Your task to perform on an android device: turn notification dots on Image 0: 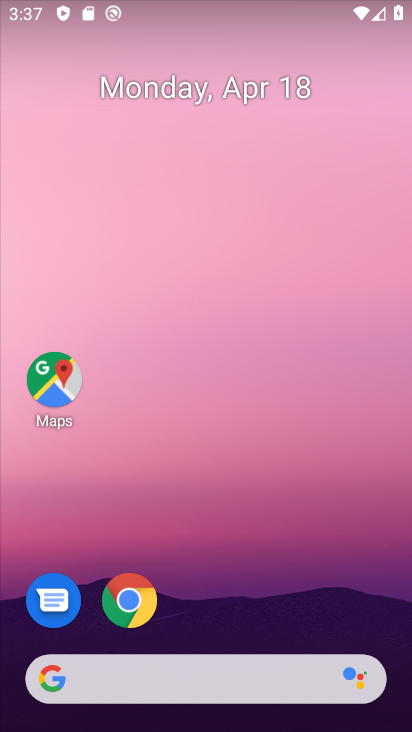
Step 0: click (117, 174)
Your task to perform on an android device: turn notification dots on Image 1: 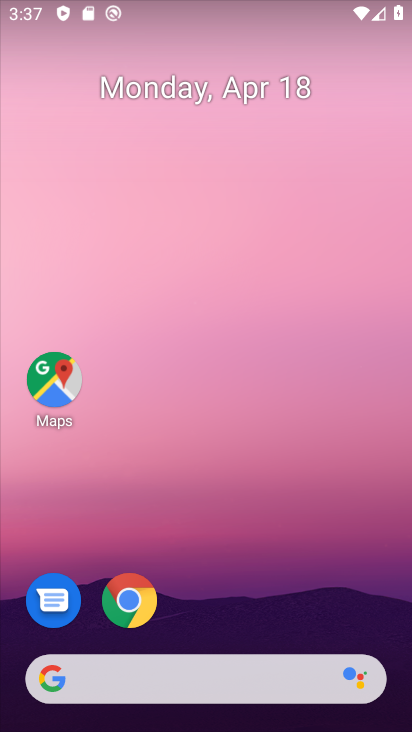
Step 1: click (182, 449)
Your task to perform on an android device: turn notification dots on Image 2: 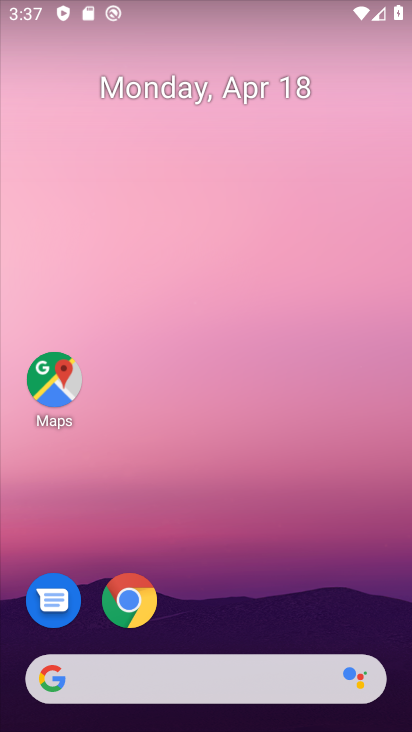
Step 2: drag from (225, 618) to (183, 8)
Your task to perform on an android device: turn notification dots on Image 3: 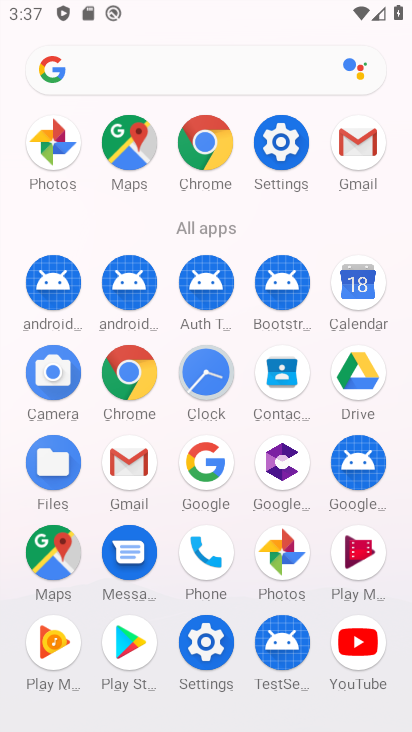
Step 3: click (282, 138)
Your task to perform on an android device: turn notification dots on Image 4: 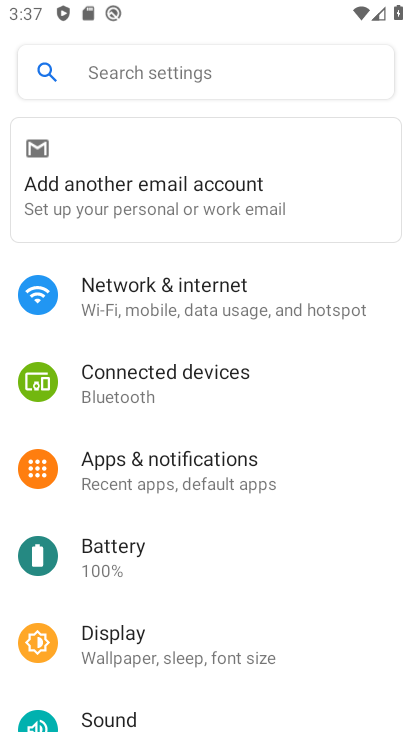
Step 4: click (160, 72)
Your task to perform on an android device: turn notification dots on Image 5: 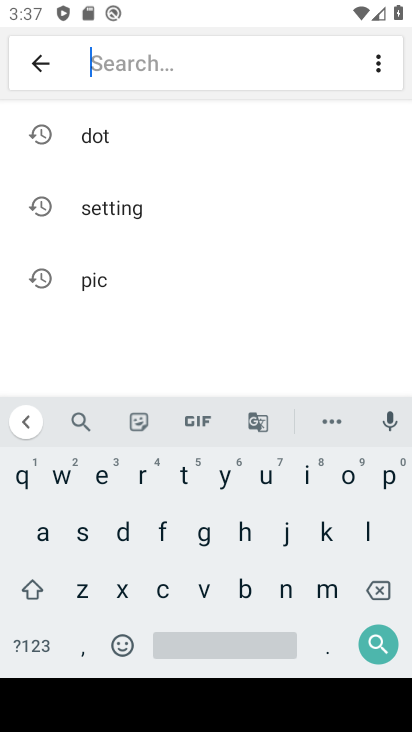
Step 5: click (121, 133)
Your task to perform on an android device: turn notification dots on Image 6: 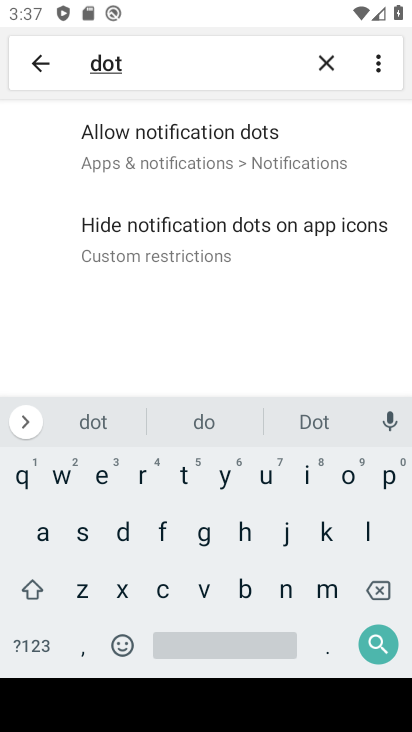
Step 6: click (121, 133)
Your task to perform on an android device: turn notification dots on Image 7: 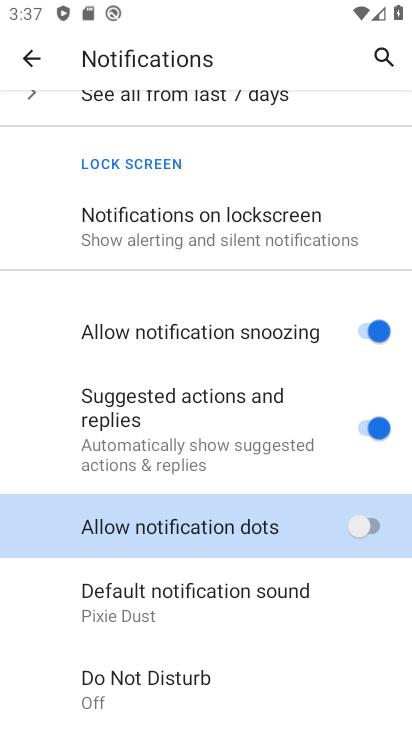
Step 7: click (368, 529)
Your task to perform on an android device: turn notification dots on Image 8: 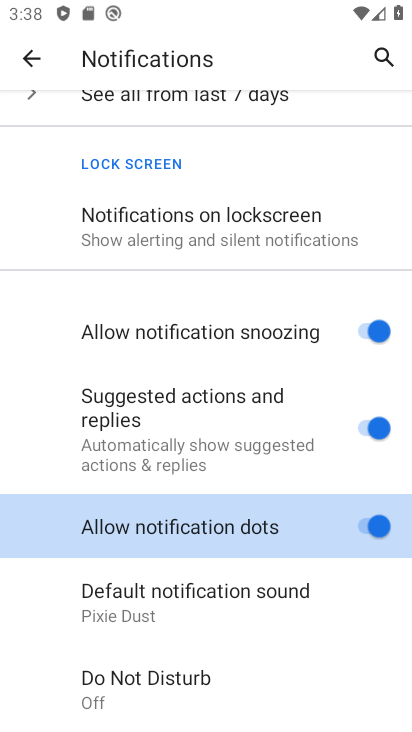
Step 8: task complete